Your task to perform on an android device: Go to battery settings Image 0: 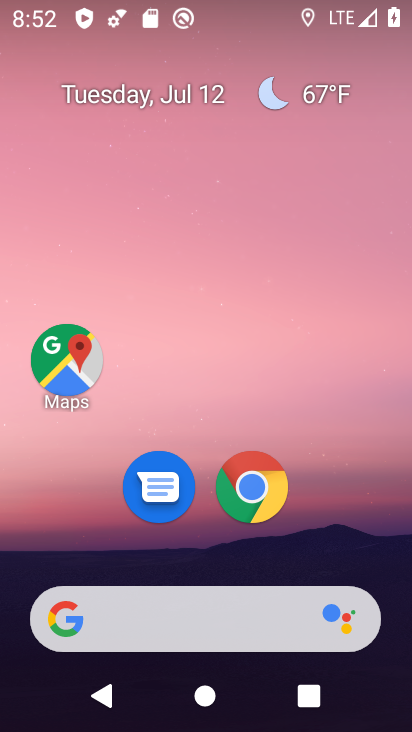
Step 0: drag from (201, 579) to (194, 222)
Your task to perform on an android device: Go to battery settings Image 1: 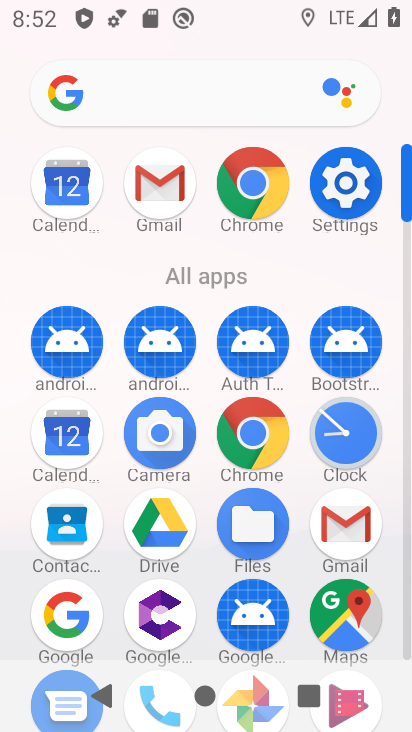
Step 1: click (360, 201)
Your task to perform on an android device: Go to battery settings Image 2: 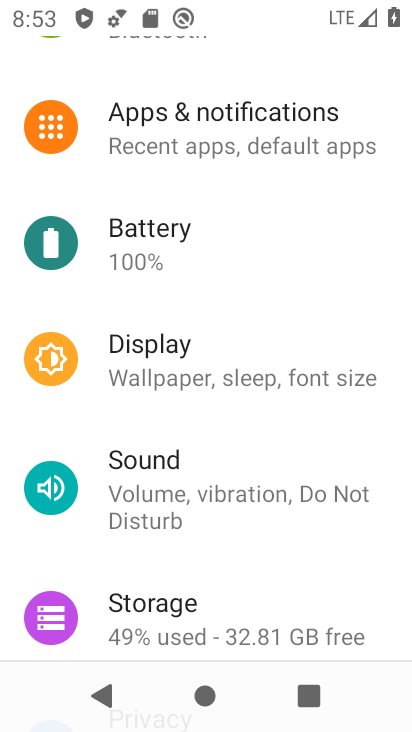
Step 2: click (113, 244)
Your task to perform on an android device: Go to battery settings Image 3: 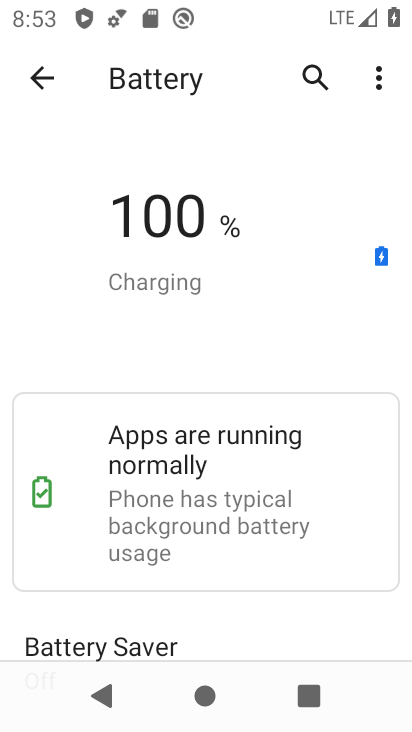
Step 3: task complete